Your task to perform on an android device: set the timer Image 0: 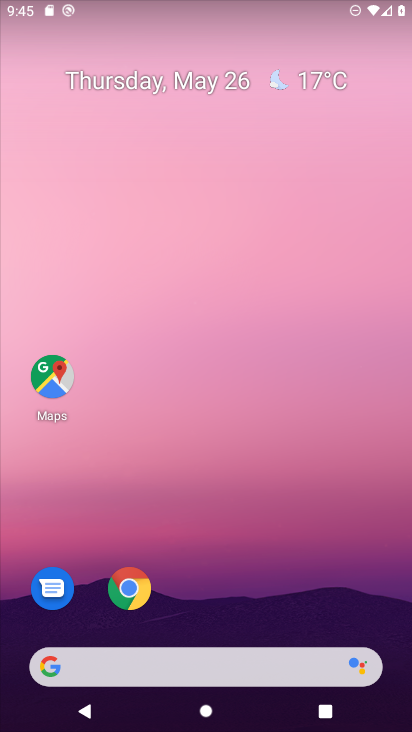
Step 0: drag from (394, 634) to (337, 64)
Your task to perform on an android device: set the timer Image 1: 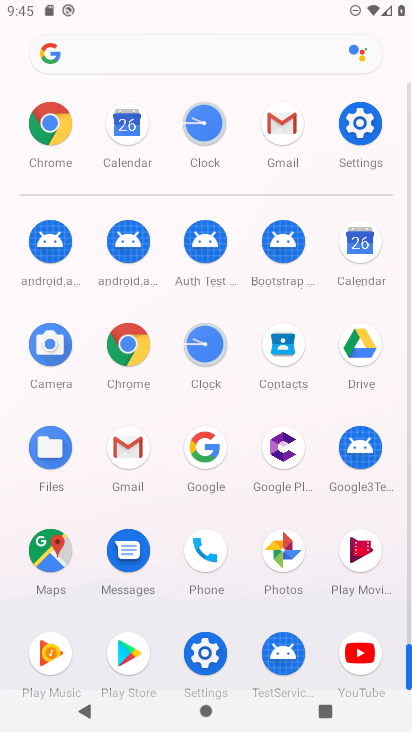
Step 1: click (206, 347)
Your task to perform on an android device: set the timer Image 2: 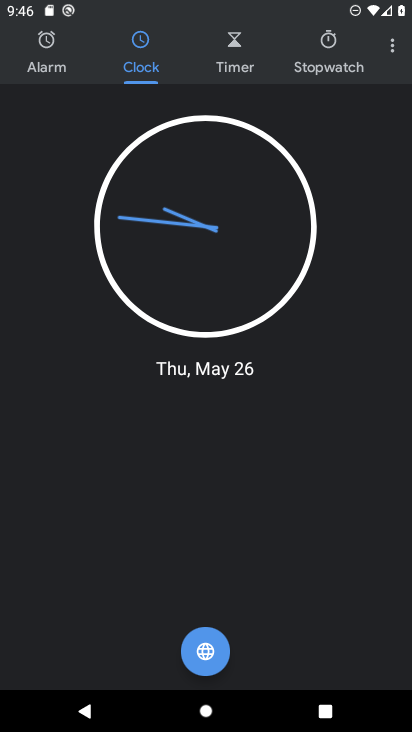
Step 2: click (241, 47)
Your task to perform on an android device: set the timer Image 3: 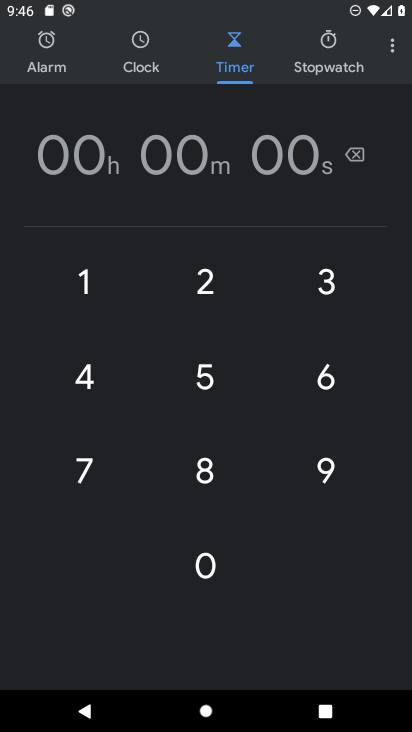
Step 3: click (82, 294)
Your task to perform on an android device: set the timer Image 4: 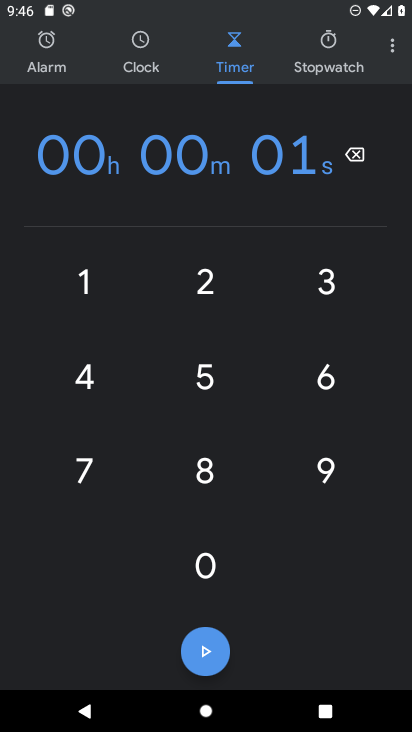
Step 4: click (336, 299)
Your task to perform on an android device: set the timer Image 5: 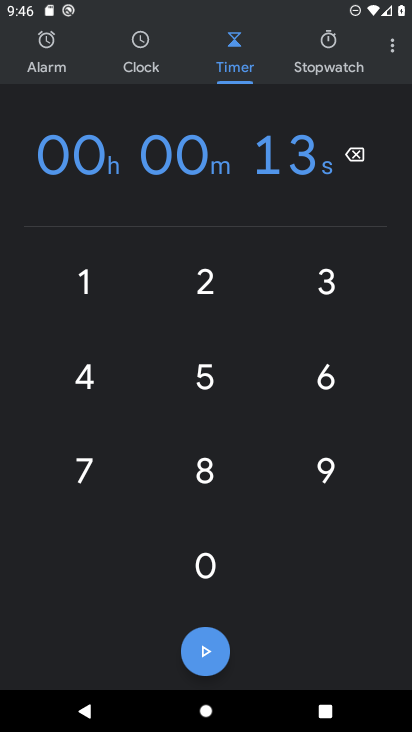
Step 5: click (191, 553)
Your task to perform on an android device: set the timer Image 6: 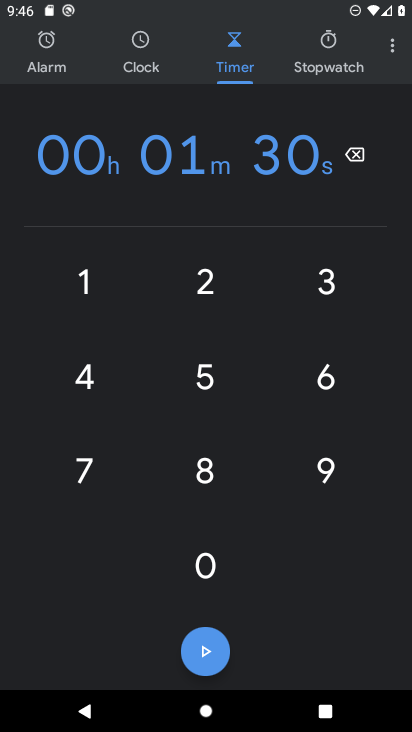
Step 6: click (191, 553)
Your task to perform on an android device: set the timer Image 7: 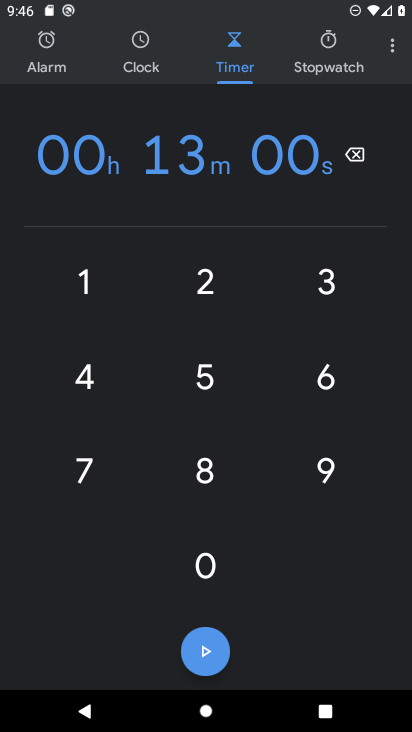
Step 7: click (191, 553)
Your task to perform on an android device: set the timer Image 8: 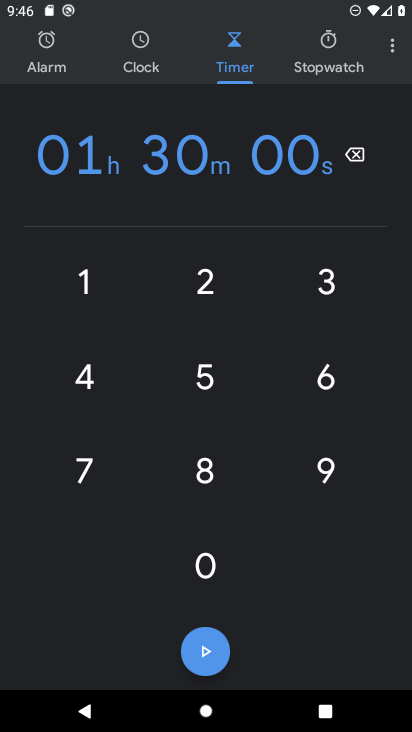
Step 8: task complete